Your task to perform on an android device: Open privacy settings Image 0: 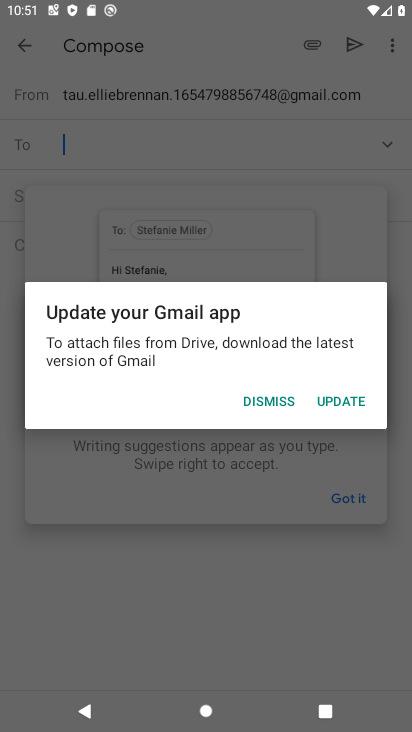
Step 0: press home button
Your task to perform on an android device: Open privacy settings Image 1: 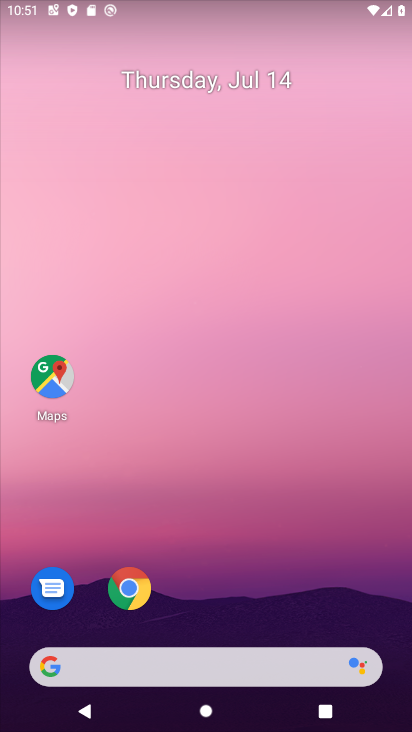
Step 1: drag from (178, 663) to (236, 216)
Your task to perform on an android device: Open privacy settings Image 2: 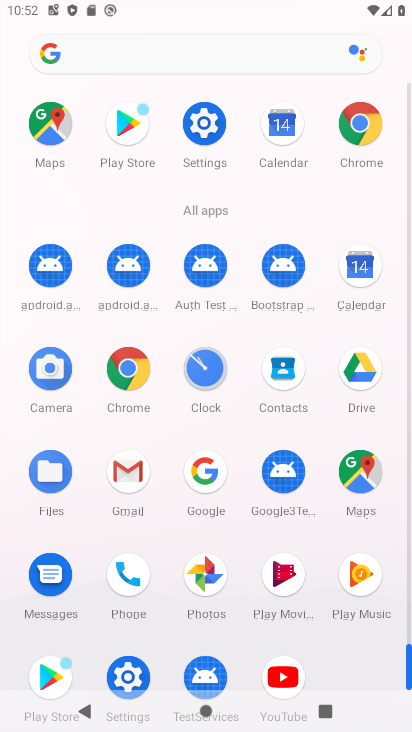
Step 2: click (202, 124)
Your task to perform on an android device: Open privacy settings Image 3: 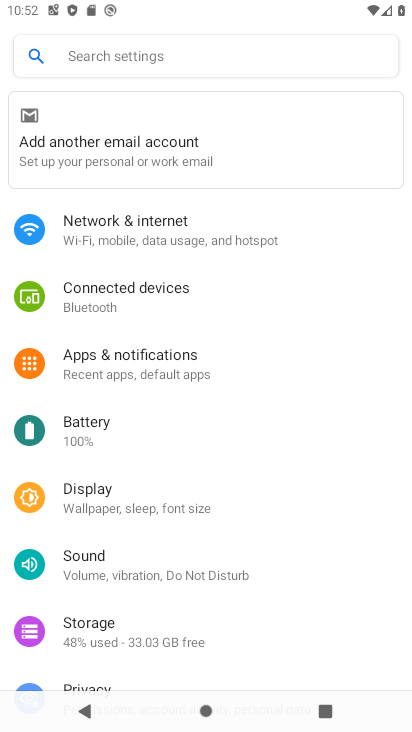
Step 3: drag from (105, 604) to (211, 475)
Your task to perform on an android device: Open privacy settings Image 4: 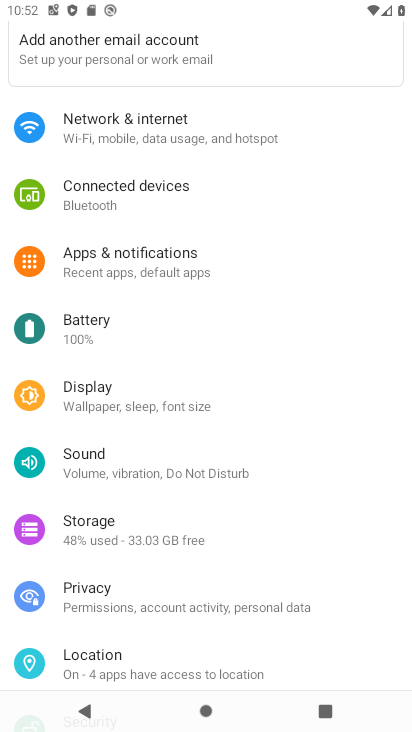
Step 4: click (128, 598)
Your task to perform on an android device: Open privacy settings Image 5: 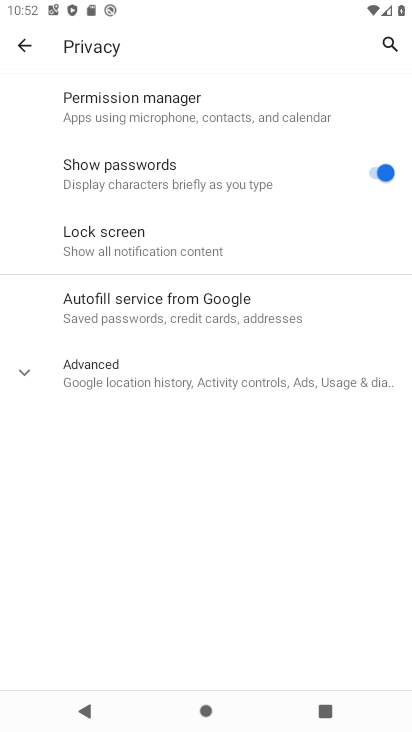
Step 5: task complete